Your task to perform on an android device: When is my next meeting? Image 0: 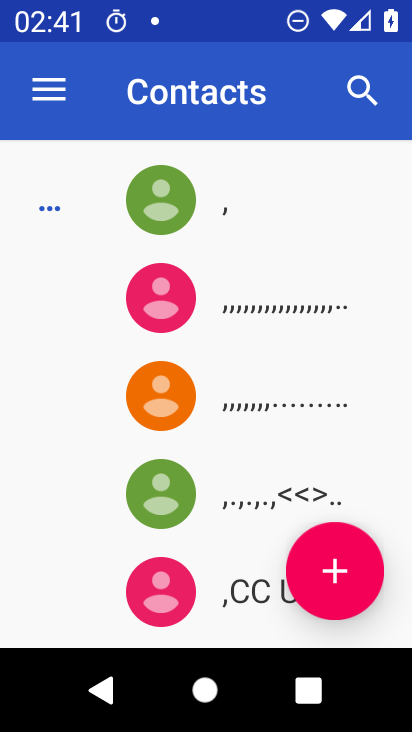
Step 0: press home button
Your task to perform on an android device: When is my next meeting? Image 1: 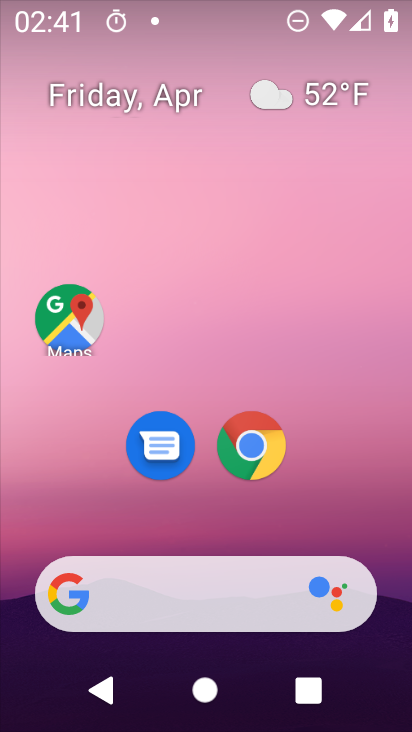
Step 1: drag from (361, 508) to (346, 77)
Your task to perform on an android device: When is my next meeting? Image 2: 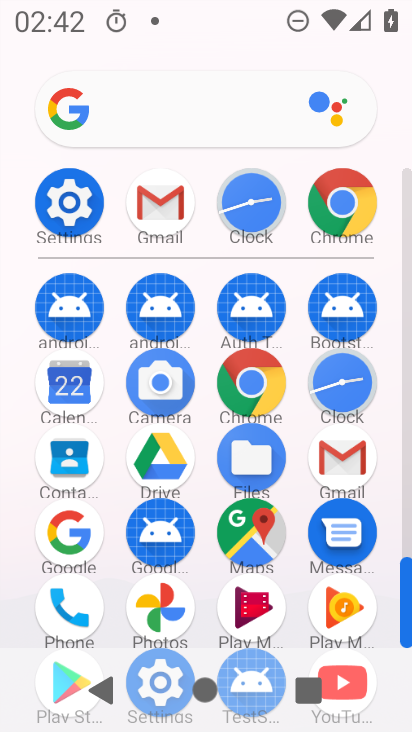
Step 2: click (50, 406)
Your task to perform on an android device: When is my next meeting? Image 3: 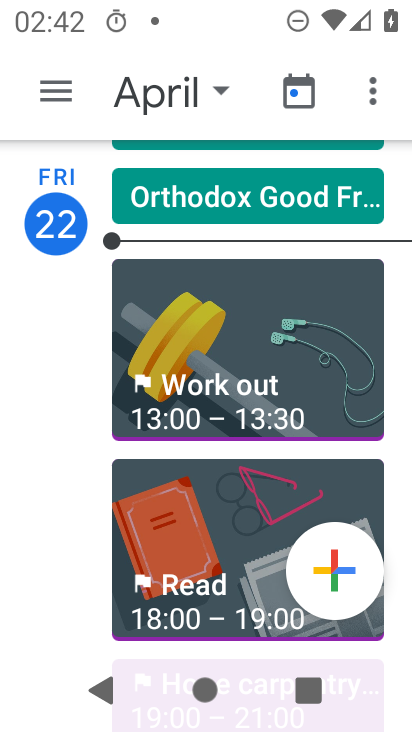
Step 3: click (221, 557)
Your task to perform on an android device: When is my next meeting? Image 4: 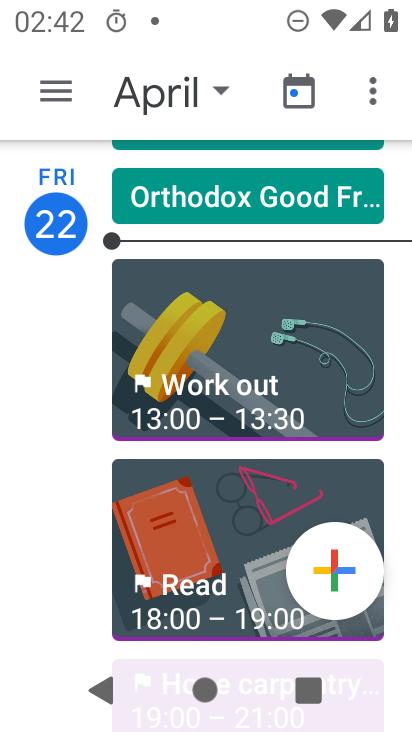
Step 4: click (209, 517)
Your task to perform on an android device: When is my next meeting? Image 5: 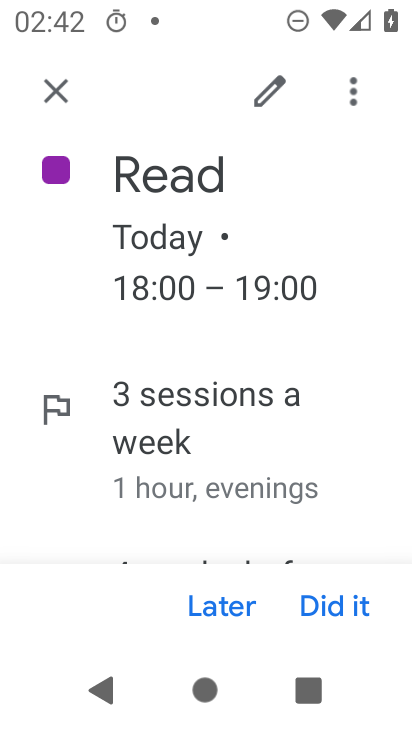
Step 5: task complete